Your task to perform on an android device: all mails in gmail Image 0: 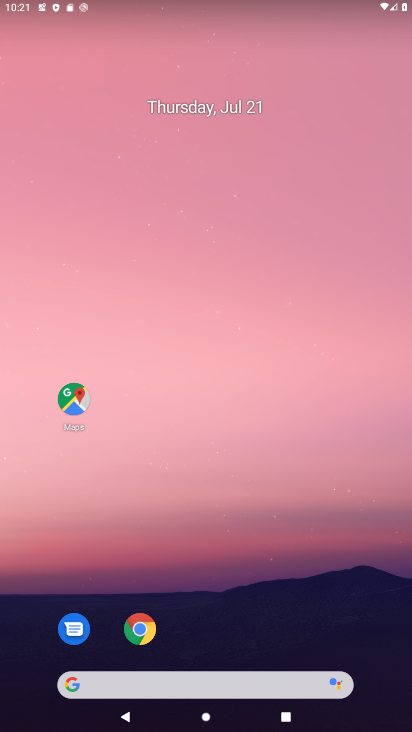
Step 0: press home button
Your task to perform on an android device: all mails in gmail Image 1: 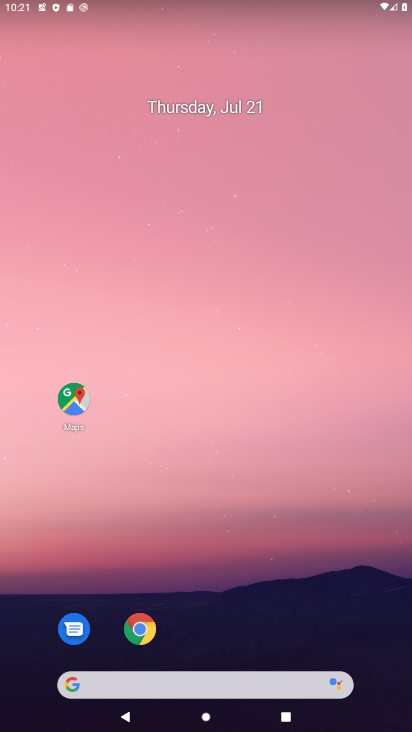
Step 1: drag from (360, 526) to (382, 211)
Your task to perform on an android device: all mails in gmail Image 2: 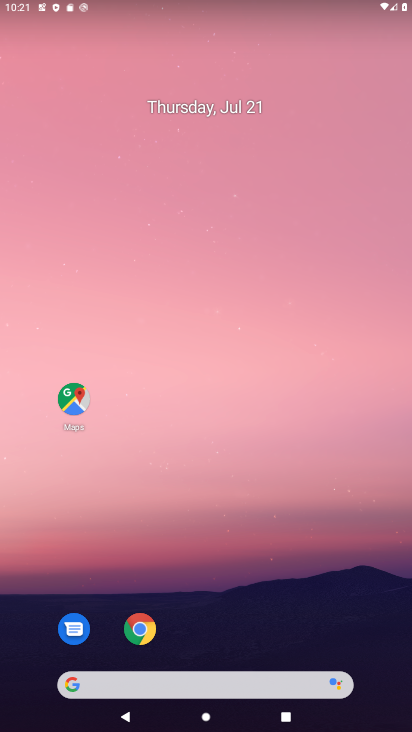
Step 2: drag from (279, 412) to (318, 486)
Your task to perform on an android device: all mails in gmail Image 3: 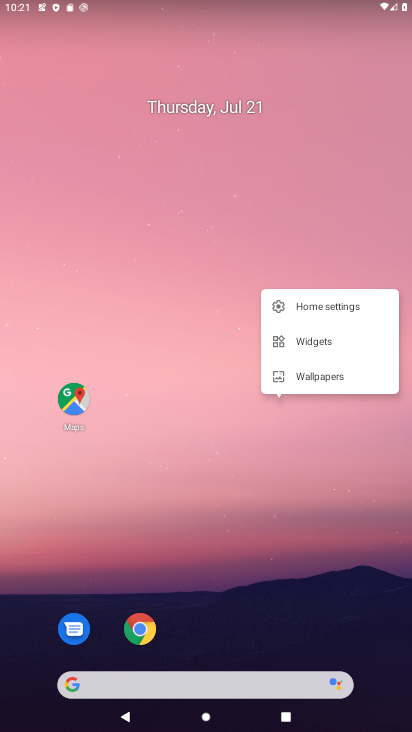
Step 3: drag from (229, 606) to (195, 146)
Your task to perform on an android device: all mails in gmail Image 4: 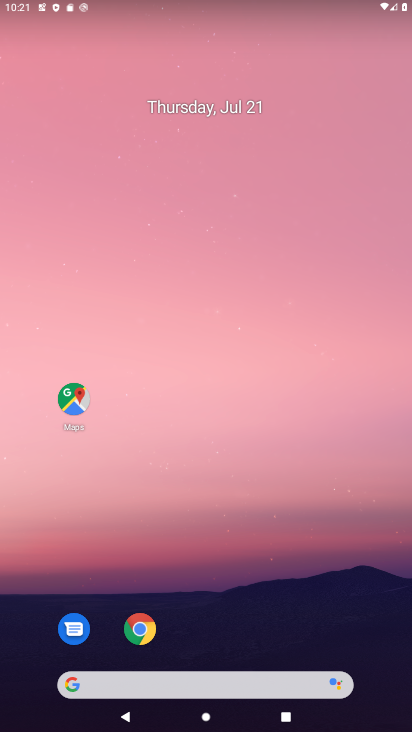
Step 4: drag from (232, 629) to (271, 100)
Your task to perform on an android device: all mails in gmail Image 5: 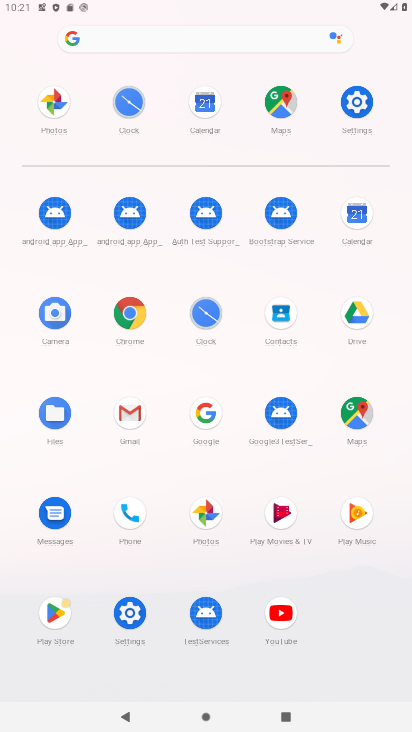
Step 5: click (140, 415)
Your task to perform on an android device: all mails in gmail Image 6: 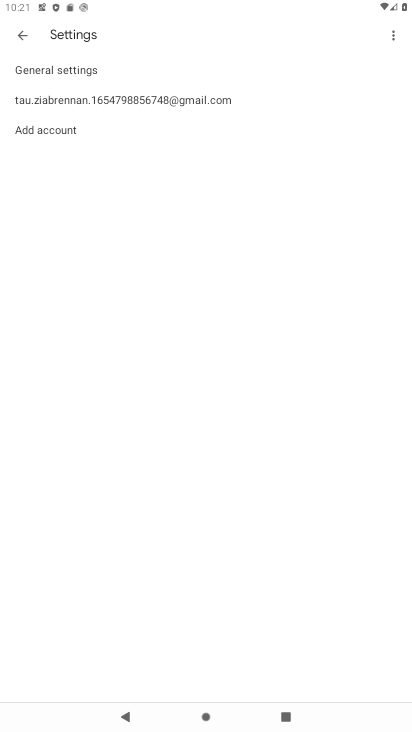
Step 6: click (15, 38)
Your task to perform on an android device: all mails in gmail Image 7: 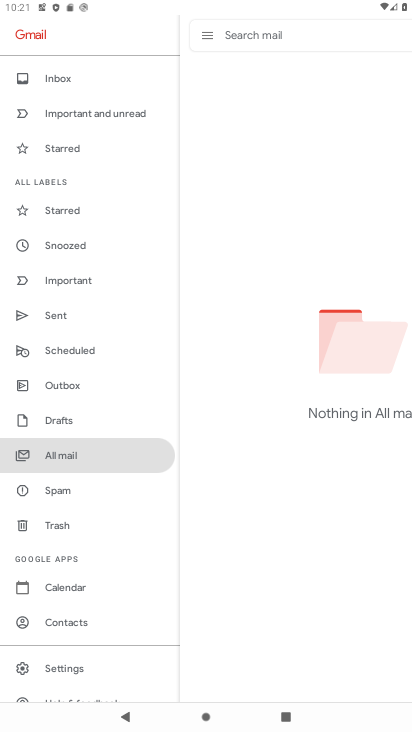
Step 7: click (106, 451)
Your task to perform on an android device: all mails in gmail Image 8: 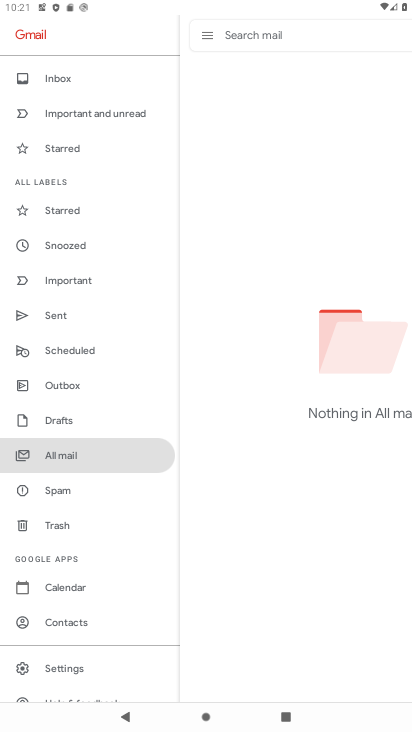
Step 8: task complete